Your task to perform on an android device: Go to Maps Image 0: 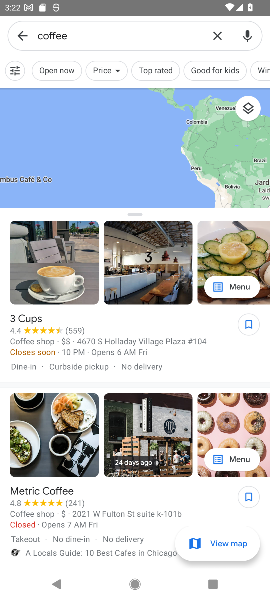
Step 0: click (21, 36)
Your task to perform on an android device: Go to Maps Image 1: 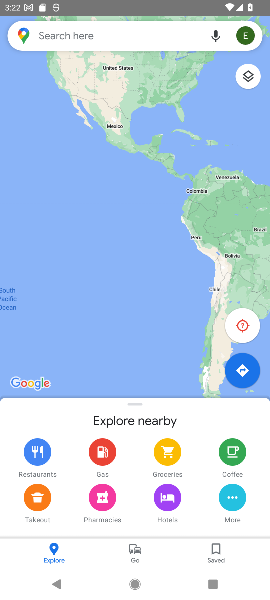
Step 1: task complete